Your task to perform on an android device: turn off sleep mode Image 0: 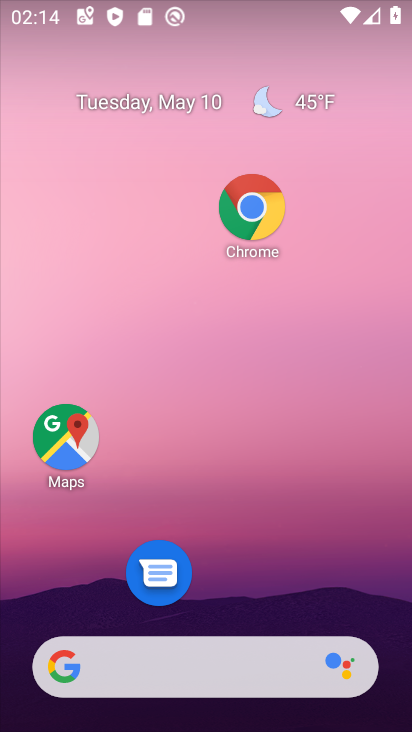
Step 0: drag from (243, 606) to (366, 3)
Your task to perform on an android device: turn off sleep mode Image 1: 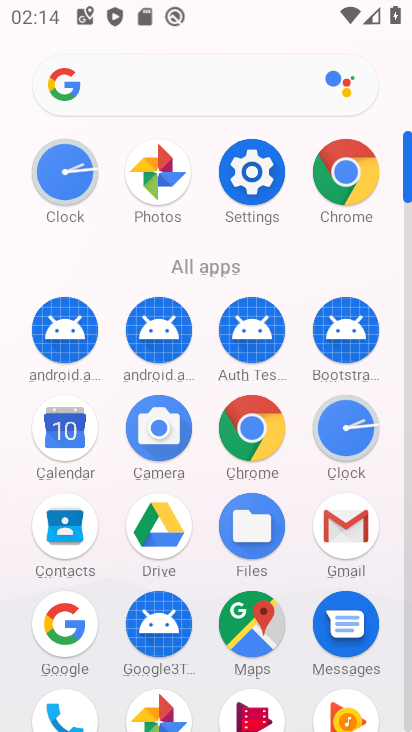
Step 1: click (258, 185)
Your task to perform on an android device: turn off sleep mode Image 2: 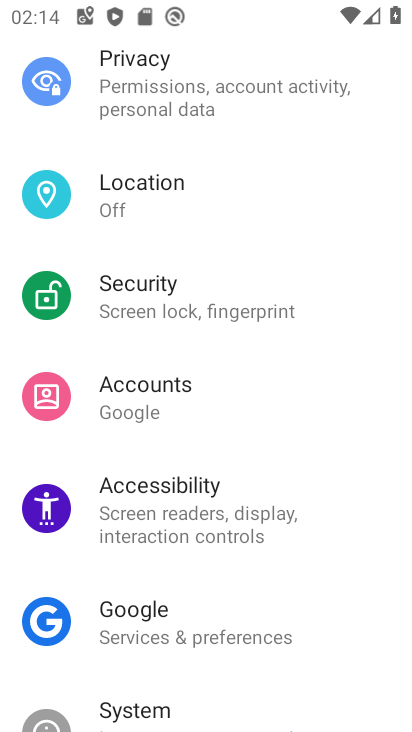
Step 2: drag from (206, 175) to (209, 602)
Your task to perform on an android device: turn off sleep mode Image 3: 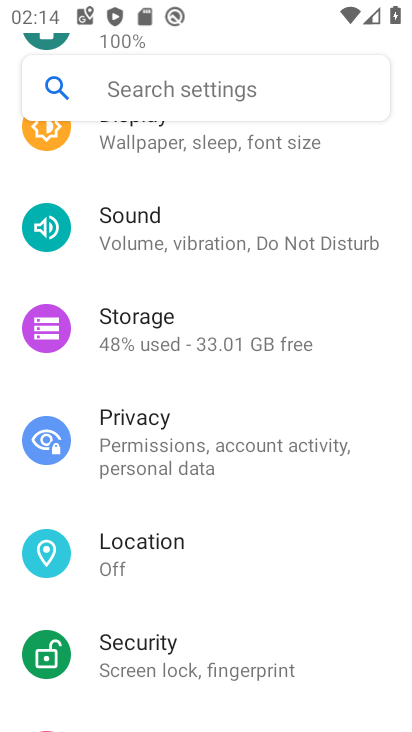
Step 3: click (215, 85)
Your task to perform on an android device: turn off sleep mode Image 4: 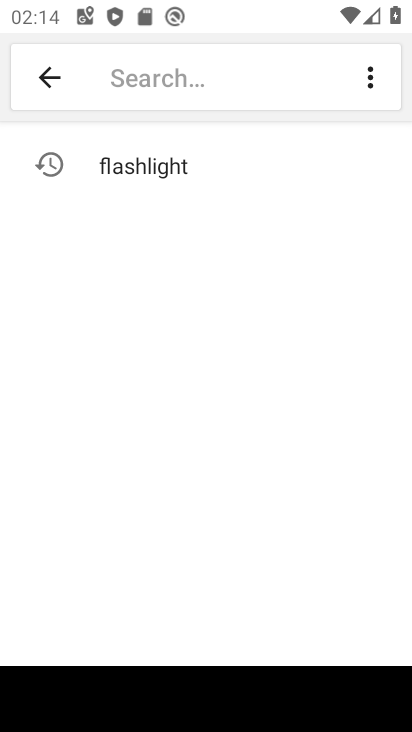
Step 4: type "sleep mode"
Your task to perform on an android device: turn off sleep mode Image 5: 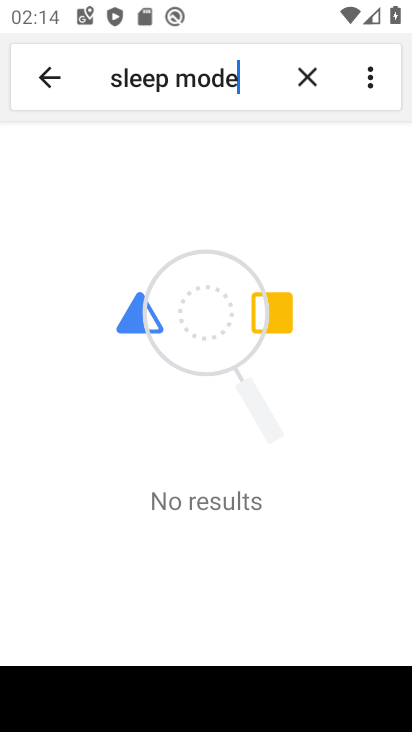
Step 5: task complete